Your task to perform on an android device: Toggle the flashlight Image 0: 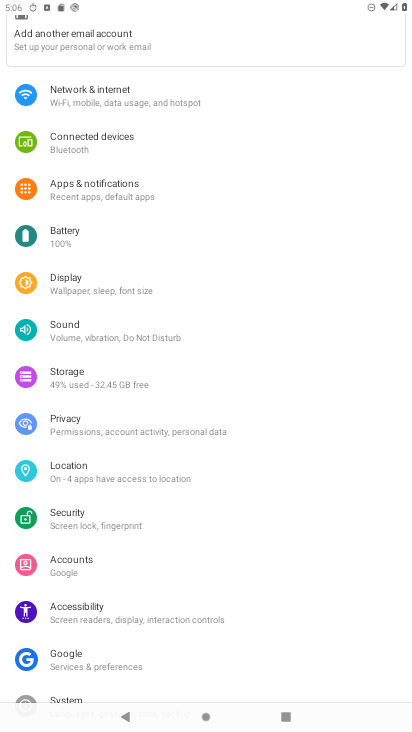
Step 0: press home button
Your task to perform on an android device: Toggle the flashlight Image 1: 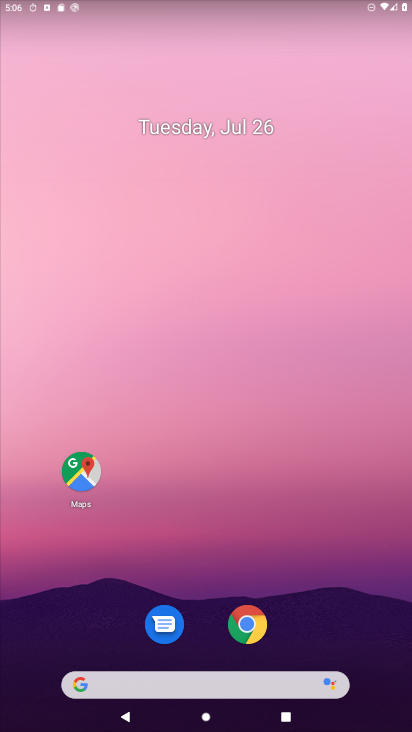
Step 1: task complete